Your task to perform on an android device: Open maps Image 0: 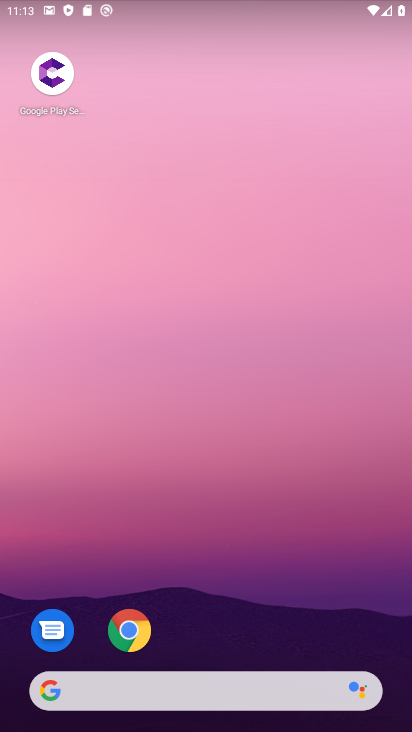
Step 0: drag from (218, 621) to (219, 260)
Your task to perform on an android device: Open maps Image 1: 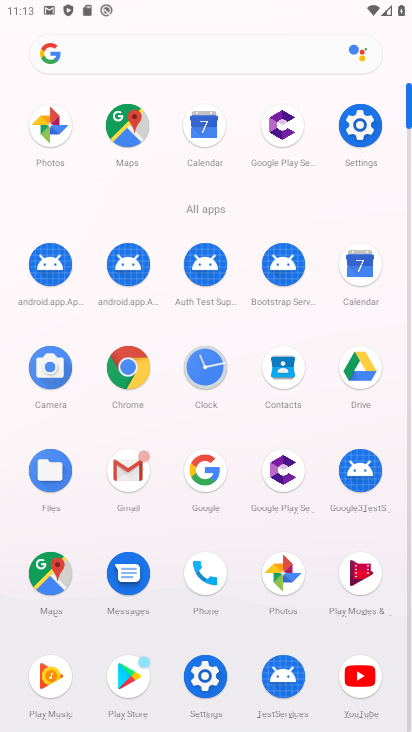
Step 1: click (115, 139)
Your task to perform on an android device: Open maps Image 2: 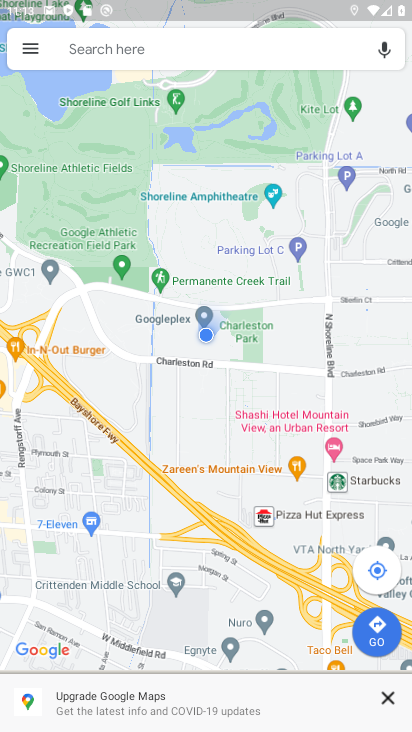
Step 2: task complete